Your task to perform on an android device: Turn off the flashlight Image 0: 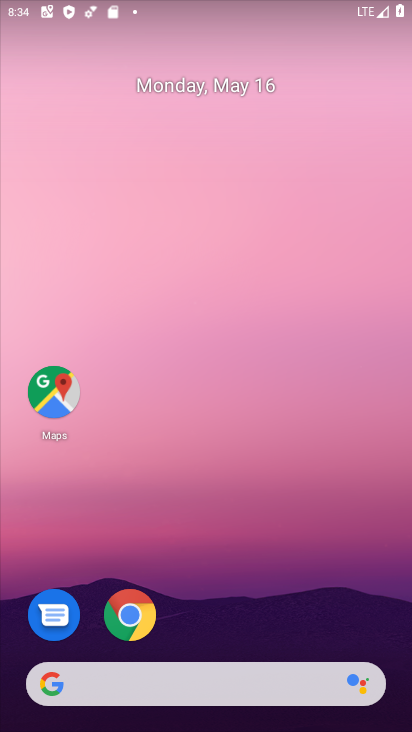
Step 0: drag from (279, 34) to (232, 415)
Your task to perform on an android device: Turn off the flashlight Image 1: 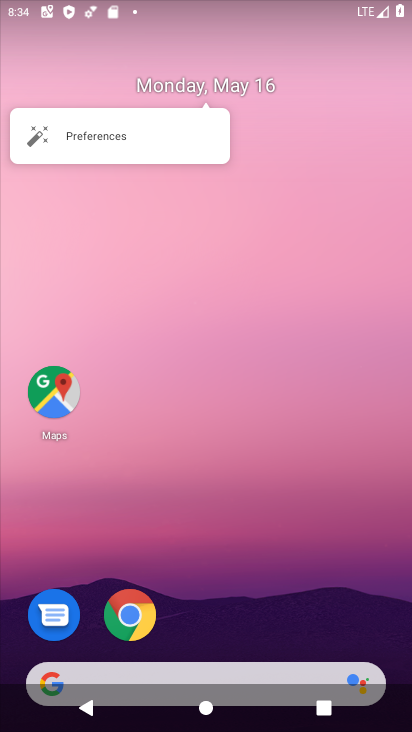
Step 1: click (377, 163)
Your task to perform on an android device: Turn off the flashlight Image 2: 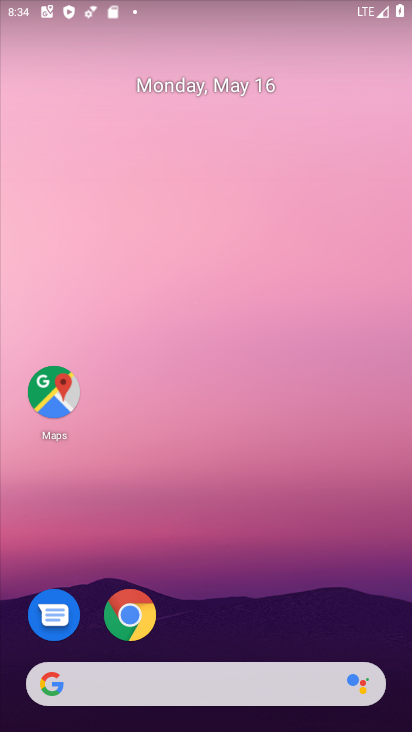
Step 2: task complete